Your task to perform on an android device: read, delete, or share a saved page in the chrome app Image 0: 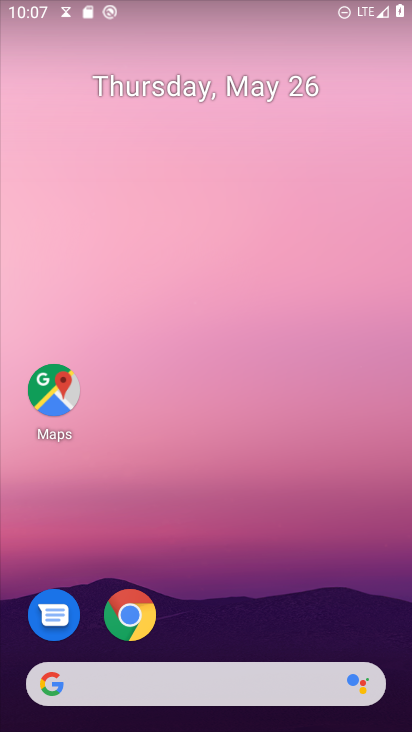
Step 0: drag from (245, 597) to (271, 236)
Your task to perform on an android device: read, delete, or share a saved page in the chrome app Image 1: 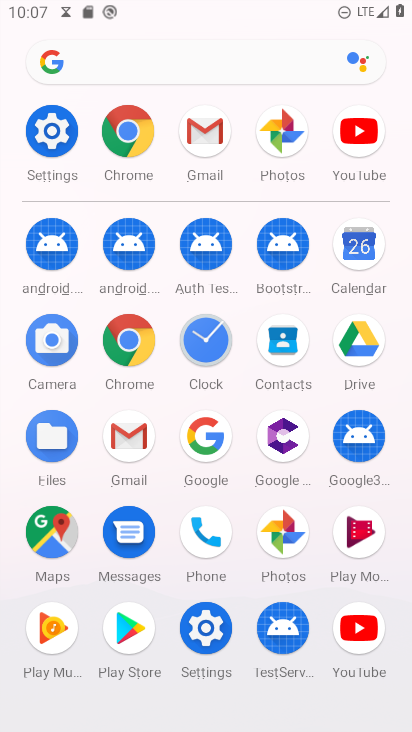
Step 1: click (113, 332)
Your task to perform on an android device: read, delete, or share a saved page in the chrome app Image 2: 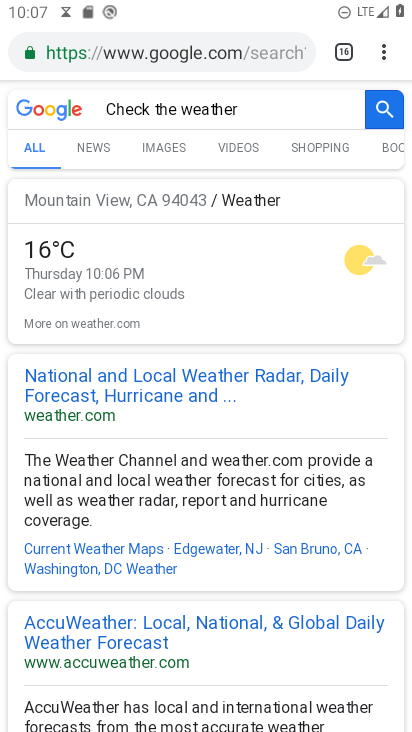
Step 2: click (371, 49)
Your task to perform on an android device: read, delete, or share a saved page in the chrome app Image 3: 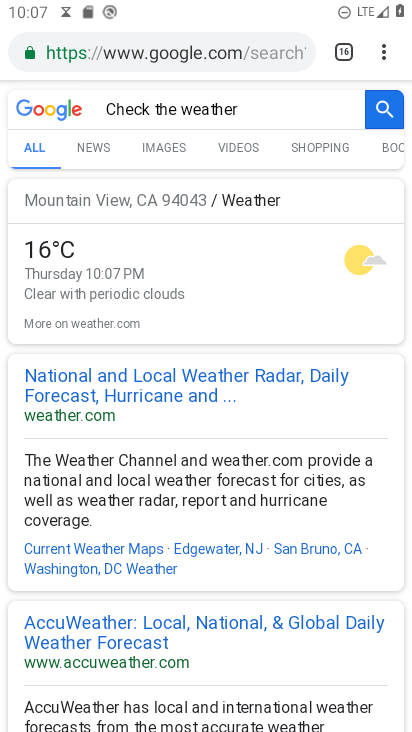
Step 3: click (385, 51)
Your task to perform on an android device: read, delete, or share a saved page in the chrome app Image 4: 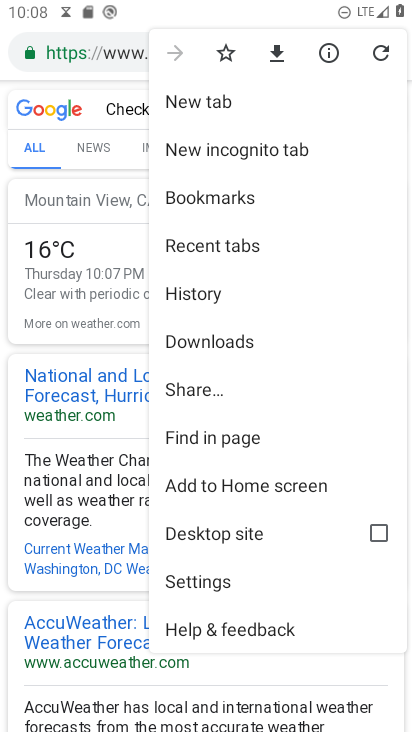
Step 4: click (228, 338)
Your task to perform on an android device: read, delete, or share a saved page in the chrome app Image 5: 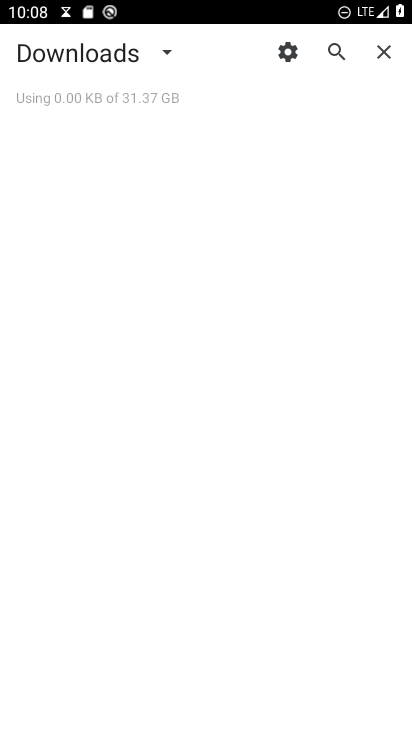
Step 5: click (166, 52)
Your task to perform on an android device: read, delete, or share a saved page in the chrome app Image 6: 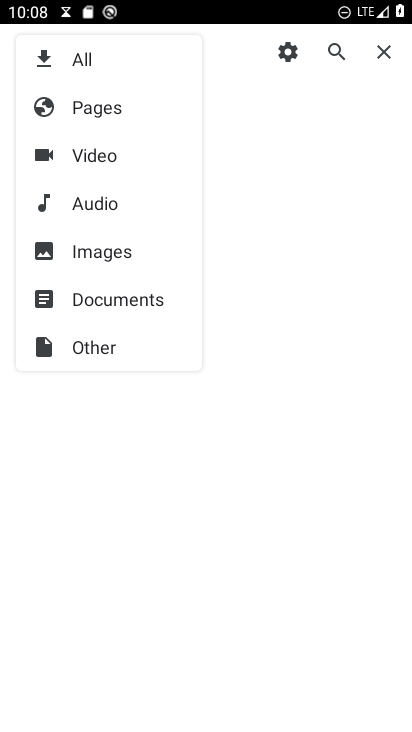
Step 6: click (80, 106)
Your task to perform on an android device: read, delete, or share a saved page in the chrome app Image 7: 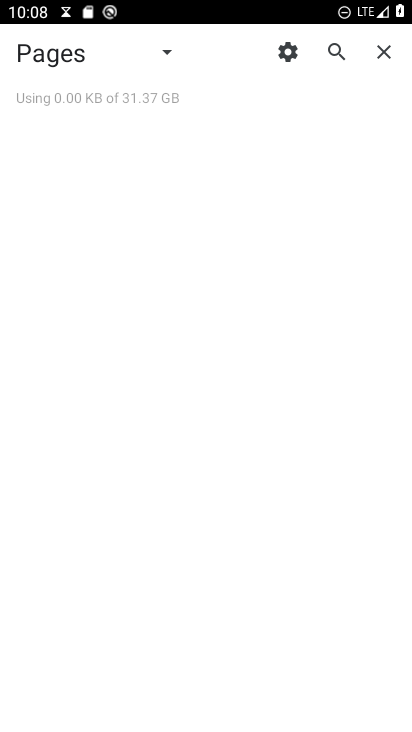
Step 7: task complete